Your task to perform on an android device: Open Google Chrome and open the bookmarks view Image 0: 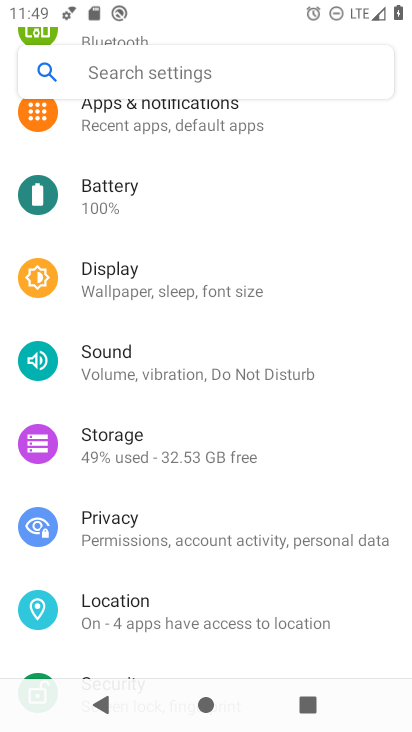
Step 0: press home button
Your task to perform on an android device: Open Google Chrome and open the bookmarks view Image 1: 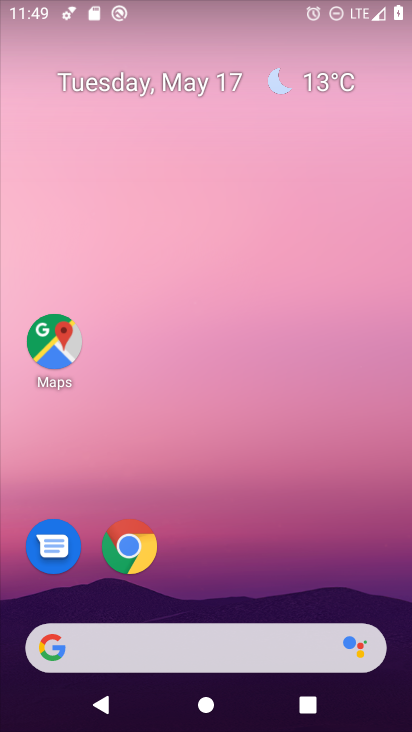
Step 1: click (135, 555)
Your task to perform on an android device: Open Google Chrome and open the bookmarks view Image 2: 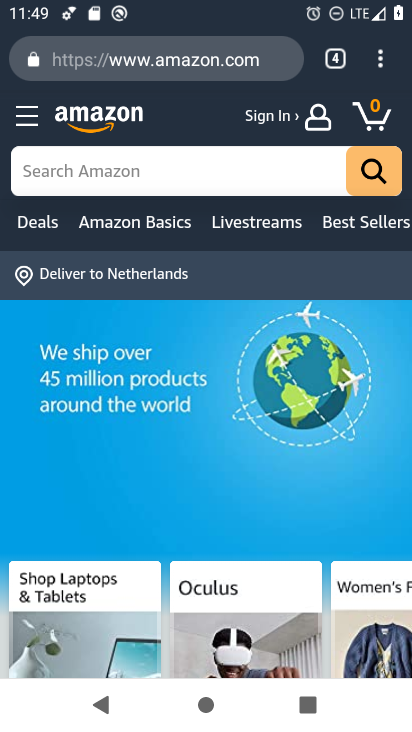
Step 2: click (382, 62)
Your task to perform on an android device: Open Google Chrome and open the bookmarks view Image 3: 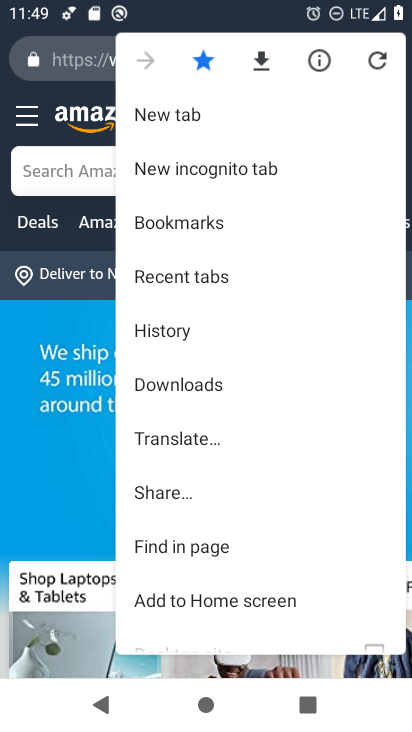
Step 3: click (168, 223)
Your task to perform on an android device: Open Google Chrome and open the bookmarks view Image 4: 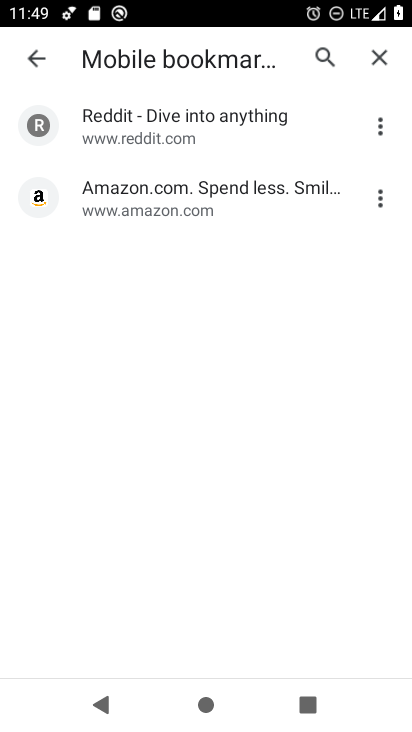
Step 4: task complete